Your task to perform on an android device: Is it going to rain today? Image 0: 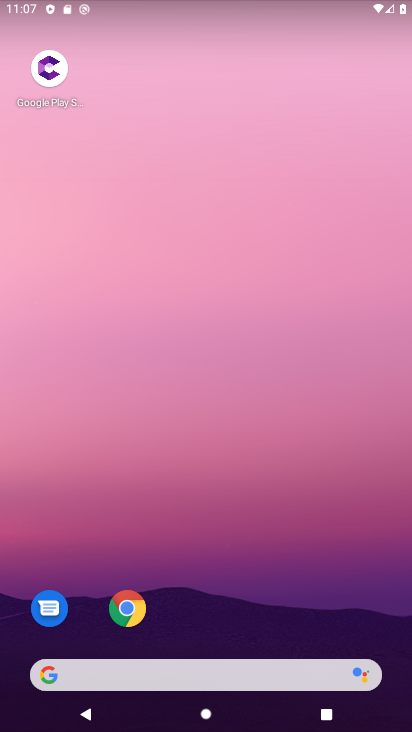
Step 0: click (190, 79)
Your task to perform on an android device: Is it going to rain today? Image 1: 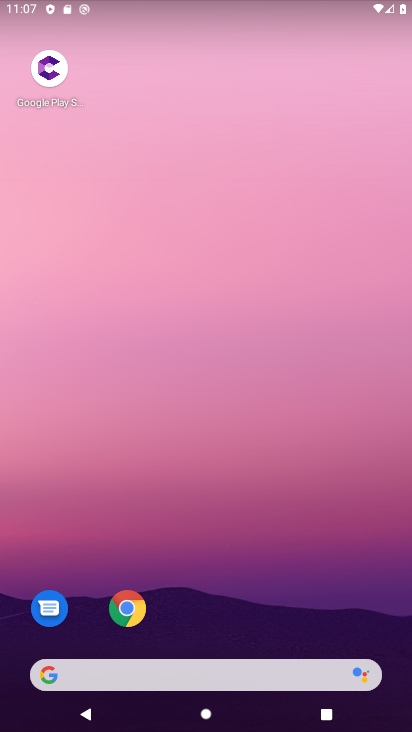
Step 1: drag from (197, 188) to (179, 75)
Your task to perform on an android device: Is it going to rain today? Image 2: 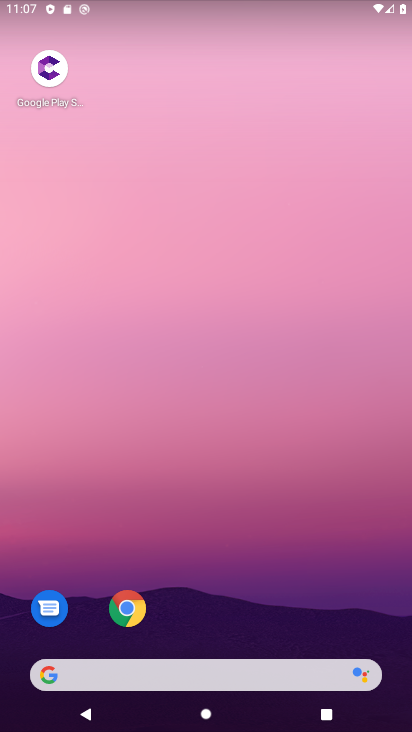
Step 2: drag from (296, 511) to (262, 11)
Your task to perform on an android device: Is it going to rain today? Image 3: 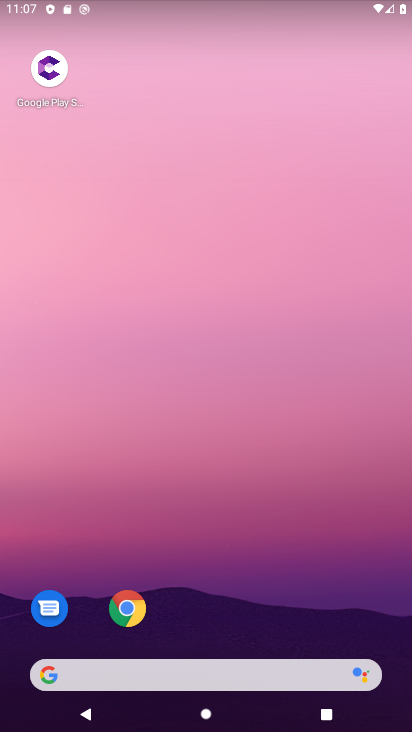
Step 3: drag from (264, 486) to (173, 168)
Your task to perform on an android device: Is it going to rain today? Image 4: 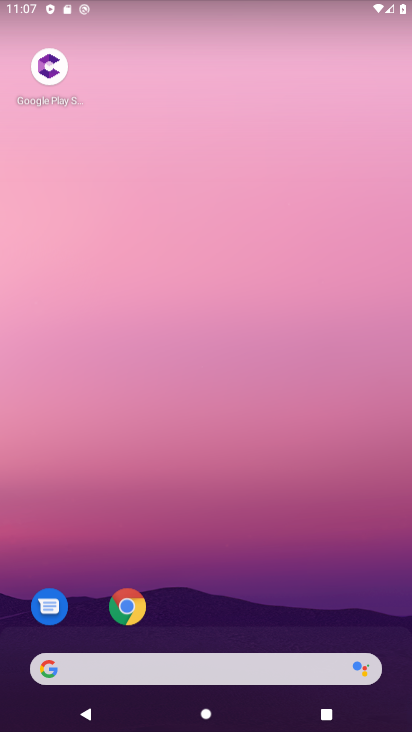
Step 4: drag from (188, 494) to (134, 22)
Your task to perform on an android device: Is it going to rain today? Image 5: 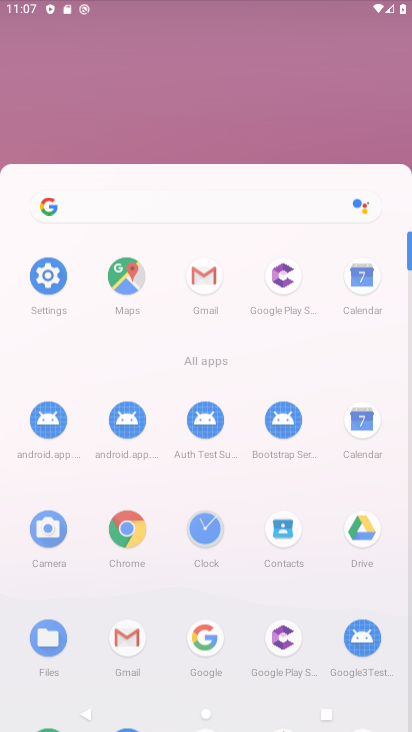
Step 5: drag from (264, 482) to (221, 13)
Your task to perform on an android device: Is it going to rain today? Image 6: 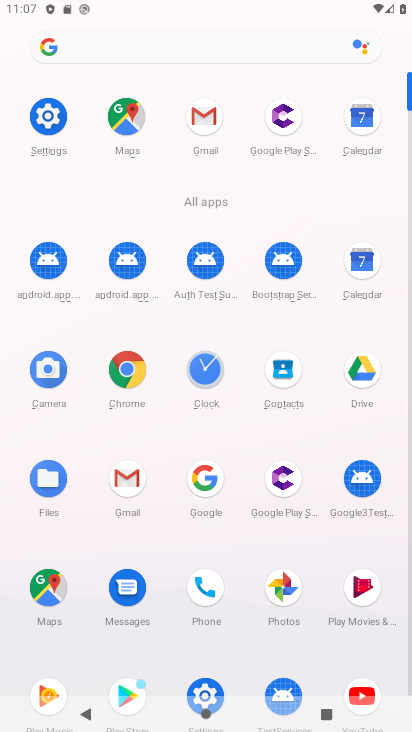
Step 6: drag from (322, 458) to (235, 16)
Your task to perform on an android device: Is it going to rain today? Image 7: 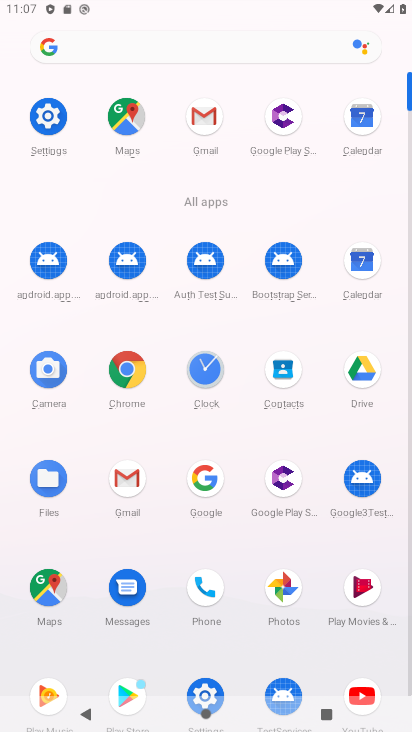
Step 7: click (131, 357)
Your task to perform on an android device: Is it going to rain today? Image 8: 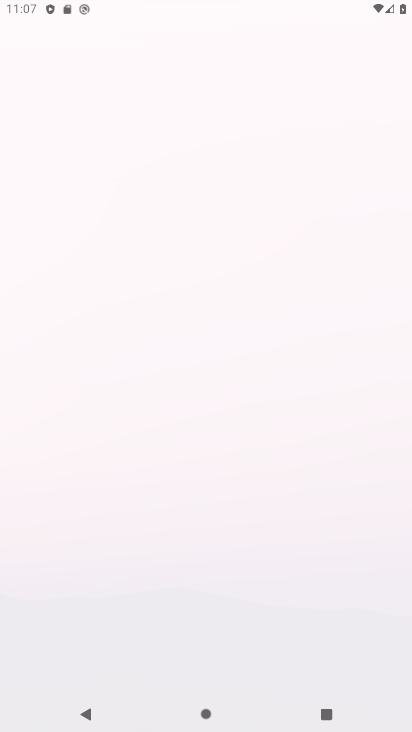
Step 8: click (134, 381)
Your task to perform on an android device: Is it going to rain today? Image 9: 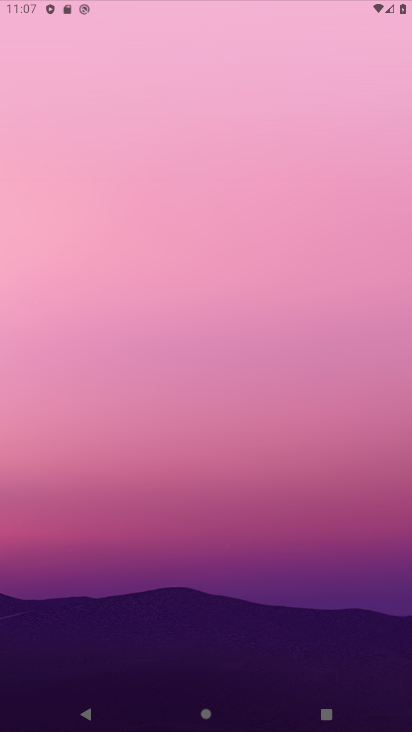
Step 9: click (140, 383)
Your task to perform on an android device: Is it going to rain today? Image 10: 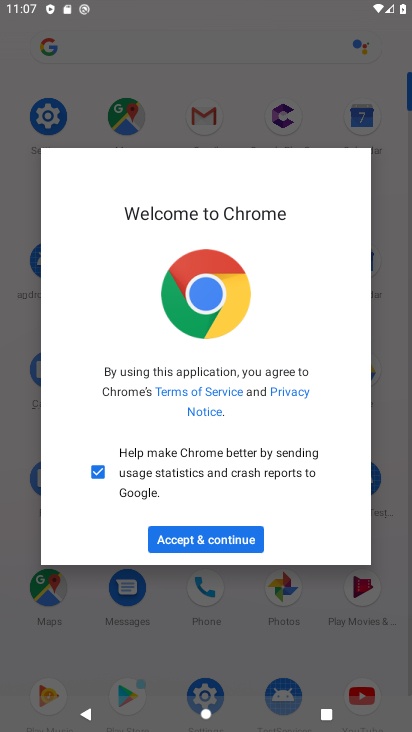
Step 10: click (220, 544)
Your task to perform on an android device: Is it going to rain today? Image 11: 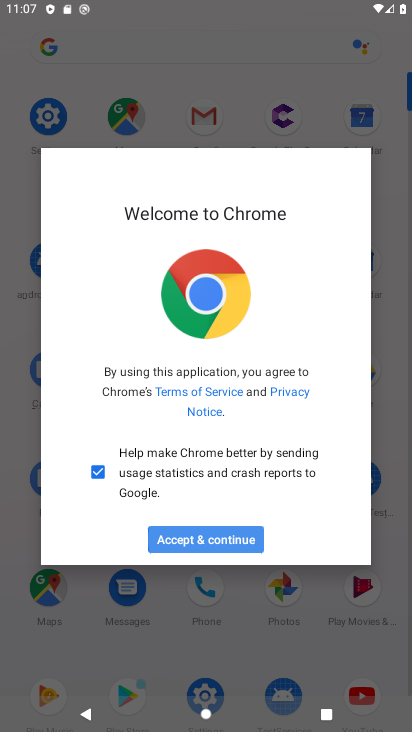
Step 11: click (221, 546)
Your task to perform on an android device: Is it going to rain today? Image 12: 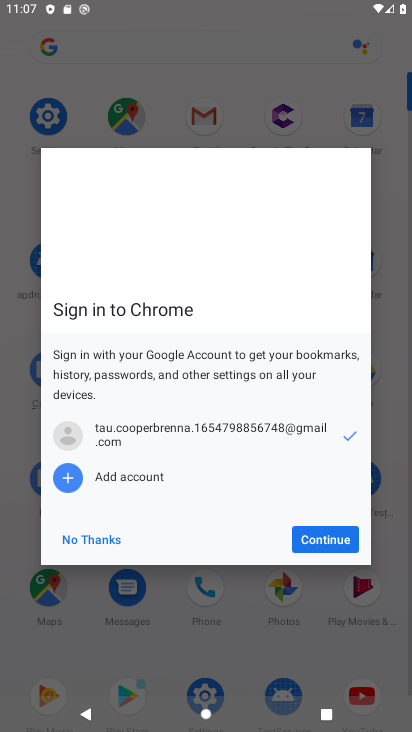
Step 12: click (315, 539)
Your task to perform on an android device: Is it going to rain today? Image 13: 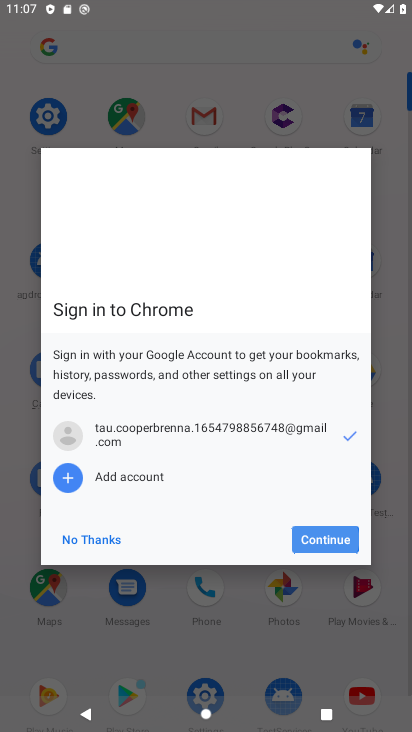
Step 13: click (326, 530)
Your task to perform on an android device: Is it going to rain today? Image 14: 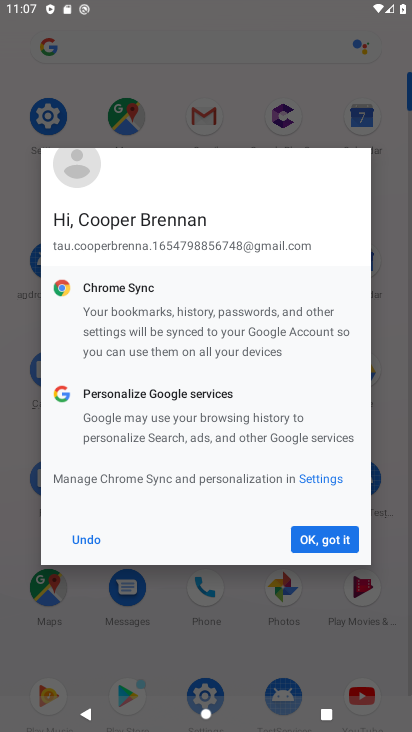
Step 14: click (345, 525)
Your task to perform on an android device: Is it going to rain today? Image 15: 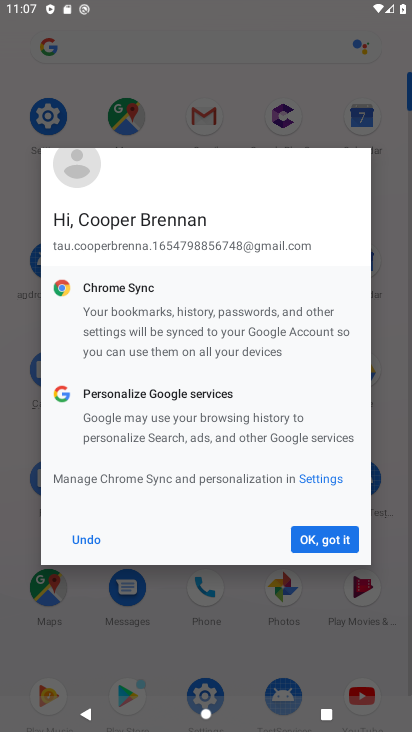
Step 15: click (329, 545)
Your task to perform on an android device: Is it going to rain today? Image 16: 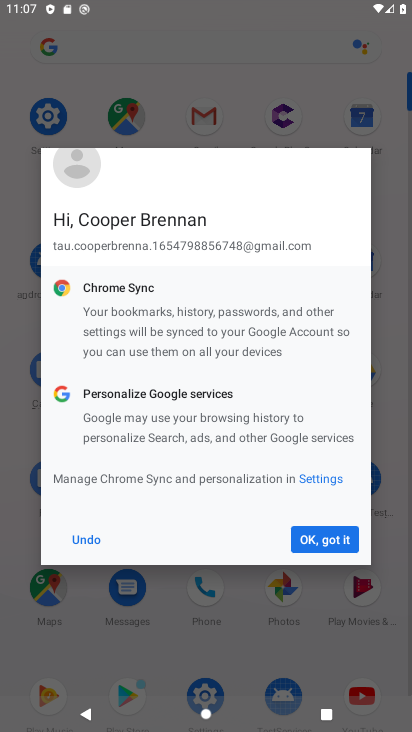
Step 16: click (330, 545)
Your task to perform on an android device: Is it going to rain today? Image 17: 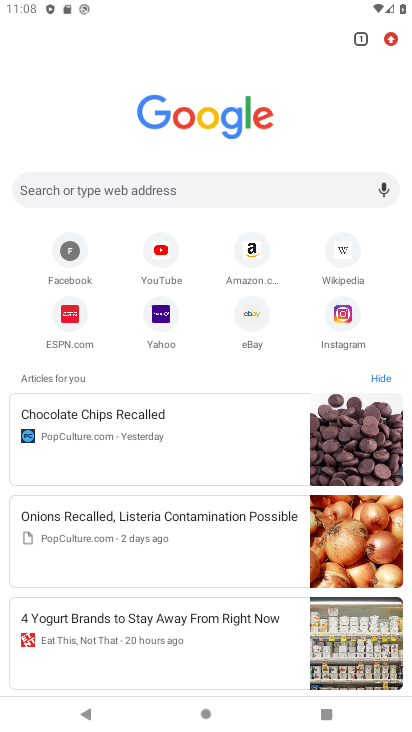
Step 17: click (86, 188)
Your task to perform on an android device: Is it going to rain today? Image 18: 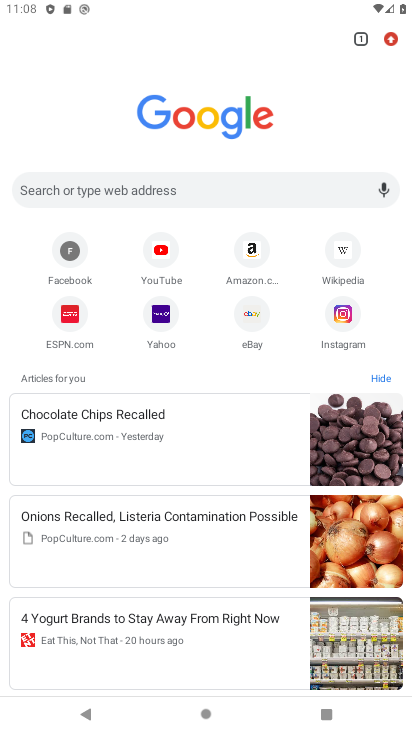
Step 18: click (88, 189)
Your task to perform on an android device: Is it going to rain today? Image 19: 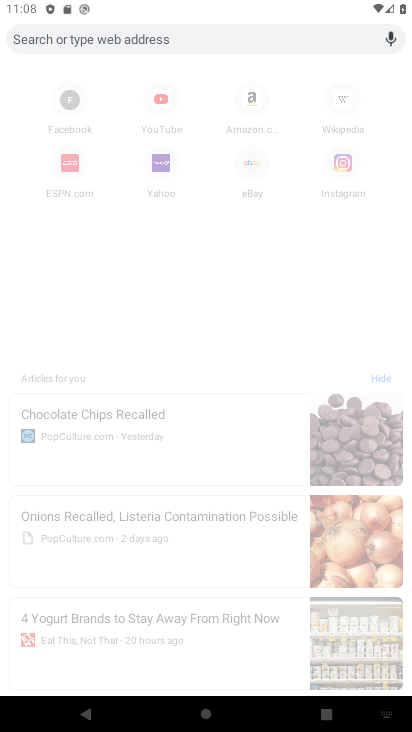
Step 19: type "Is it going to rain today?"
Your task to perform on an android device: Is it going to rain today? Image 20: 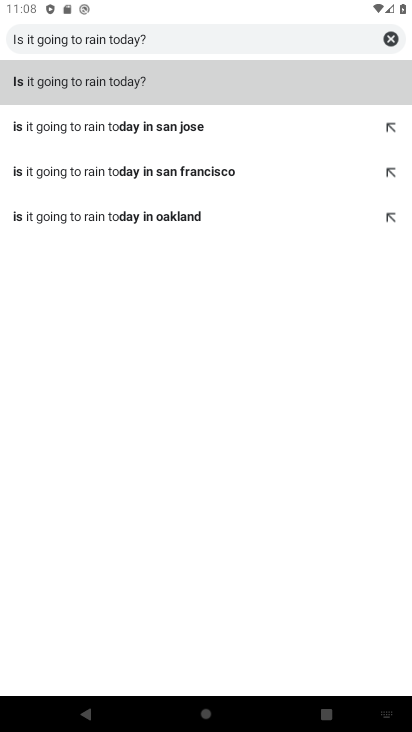
Step 20: click (112, 93)
Your task to perform on an android device: Is it going to rain today? Image 21: 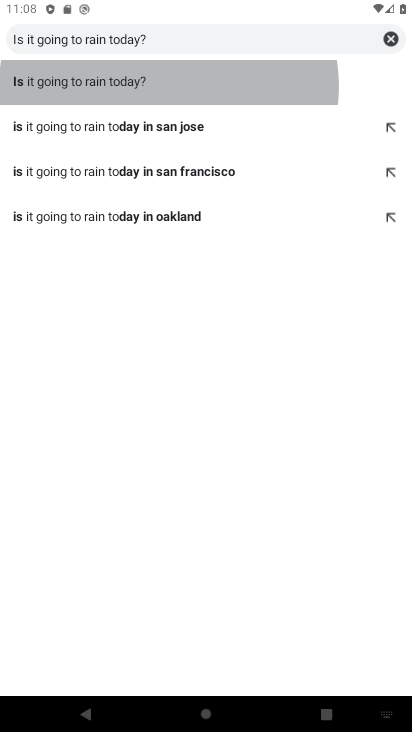
Step 21: click (118, 92)
Your task to perform on an android device: Is it going to rain today? Image 22: 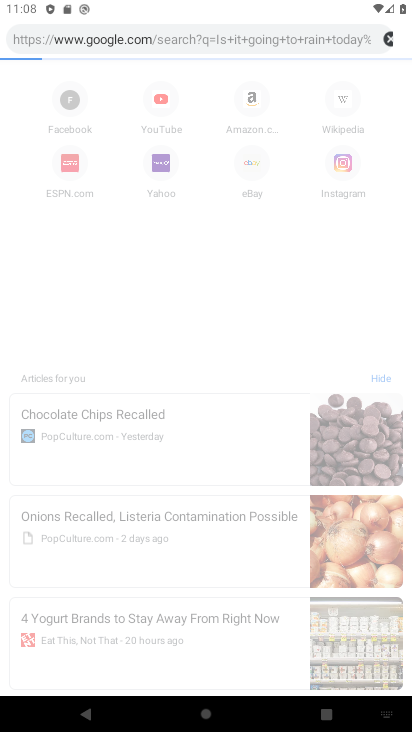
Step 22: click (120, 92)
Your task to perform on an android device: Is it going to rain today? Image 23: 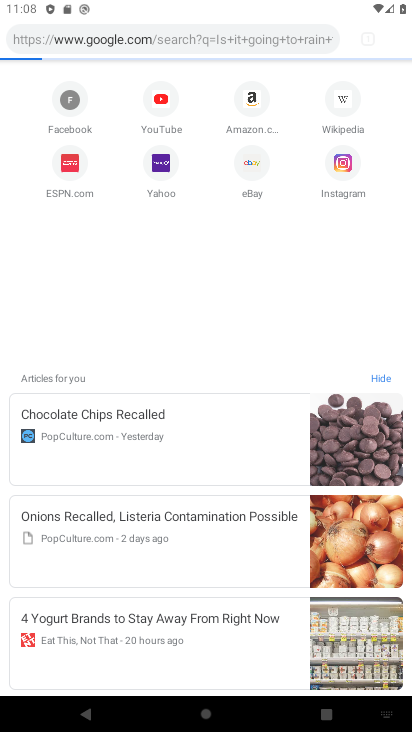
Step 23: click (126, 95)
Your task to perform on an android device: Is it going to rain today? Image 24: 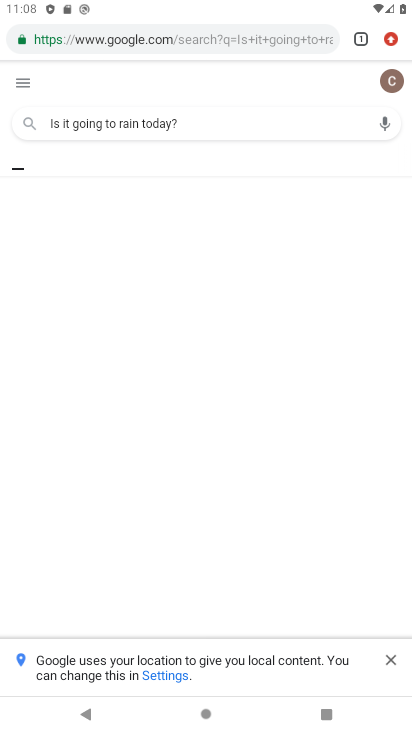
Step 24: task complete